Your task to perform on an android device: turn smart compose on in the gmail app Image 0: 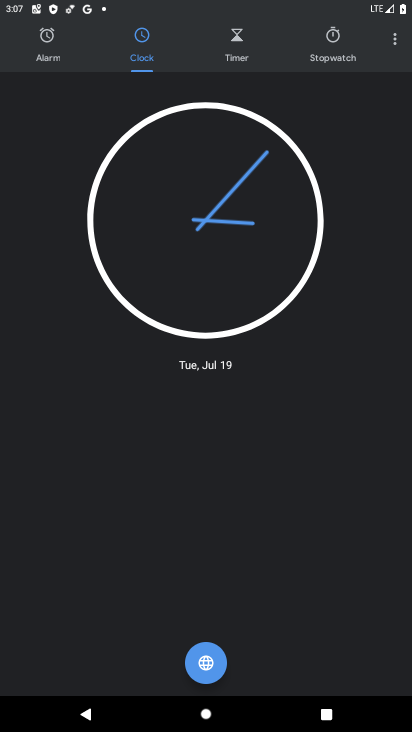
Step 0: press home button
Your task to perform on an android device: turn smart compose on in the gmail app Image 1: 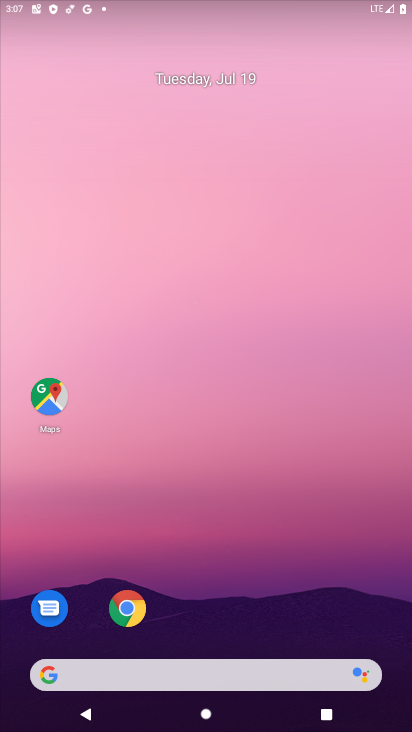
Step 1: drag from (231, 485) to (212, 71)
Your task to perform on an android device: turn smart compose on in the gmail app Image 2: 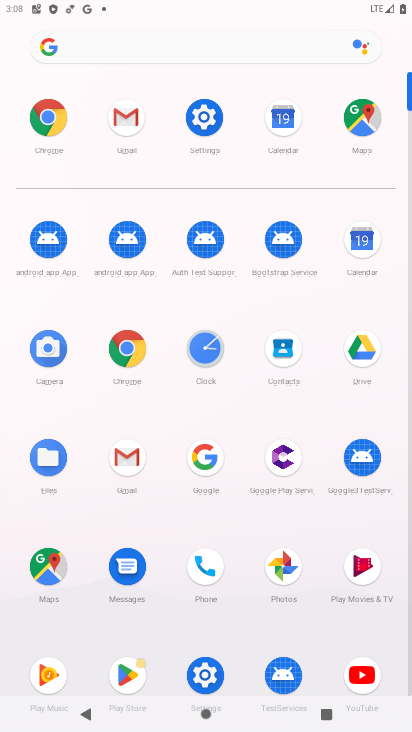
Step 2: click (124, 456)
Your task to perform on an android device: turn smart compose on in the gmail app Image 3: 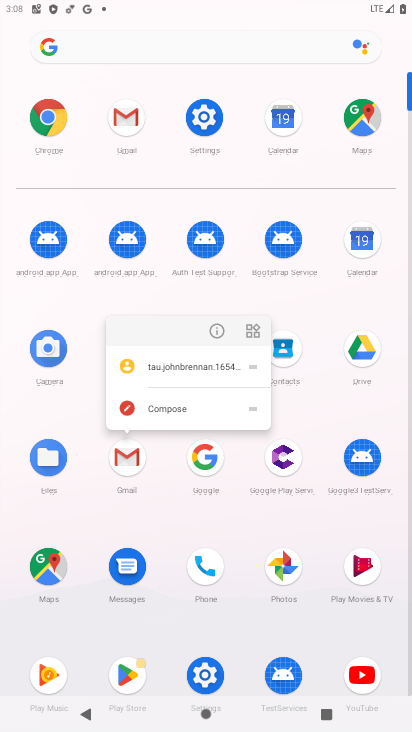
Step 3: click (128, 461)
Your task to perform on an android device: turn smart compose on in the gmail app Image 4: 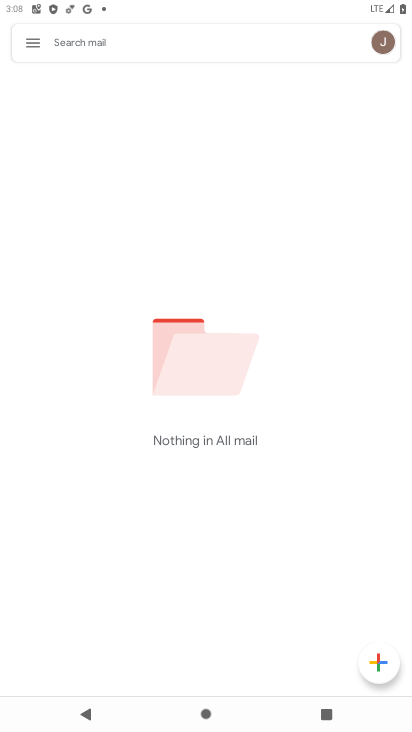
Step 4: click (37, 42)
Your task to perform on an android device: turn smart compose on in the gmail app Image 5: 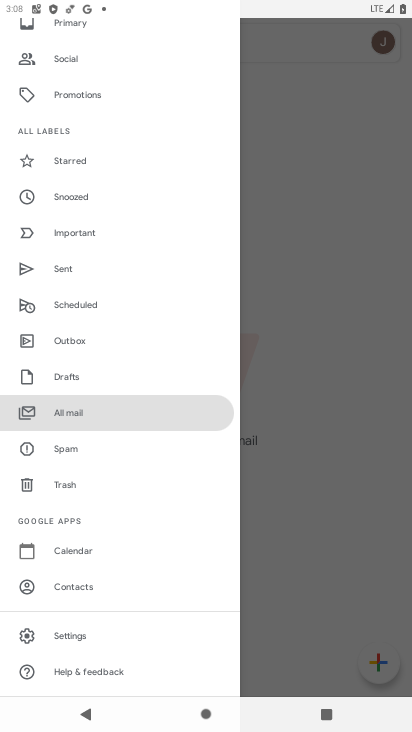
Step 5: drag from (104, 406) to (123, 179)
Your task to perform on an android device: turn smart compose on in the gmail app Image 6: 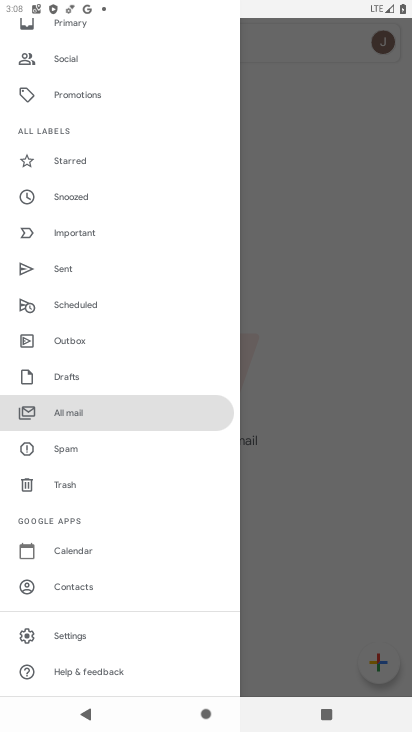
Step 6: click (69, 633)
Your task to perform on an android device: turn smart compose on in the gmail app Image 7: 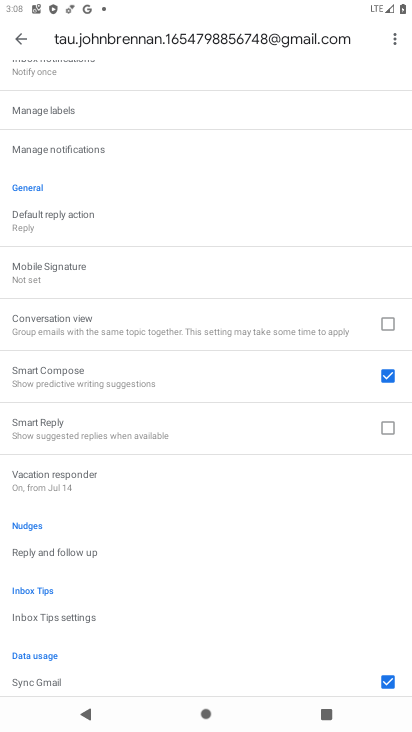
Step 7: task complete